Your task to perform on an android device: Open settings Image 0: 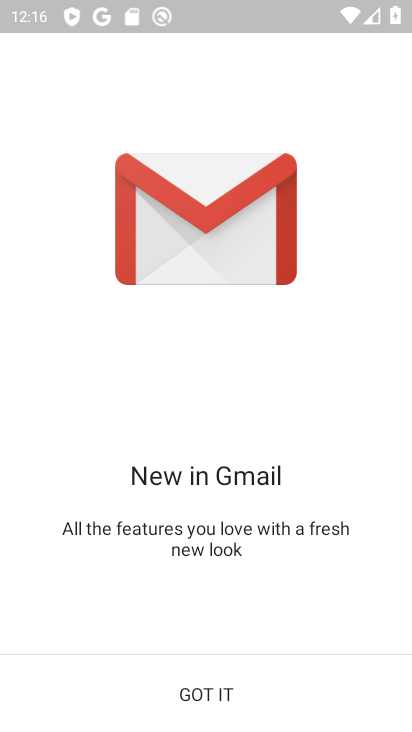
Step 0: press home button
Your task to perform on an android device: Open settings Image 1: 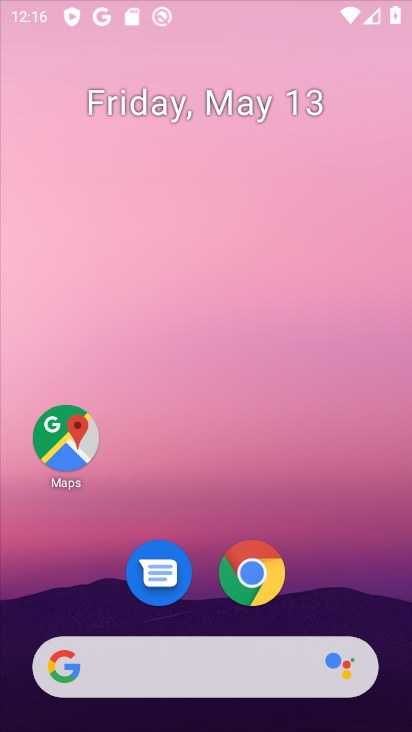
Step 1: drag from (232, 677) to (273, 337)
Your task to perform on an android device: Open settings Image 2: 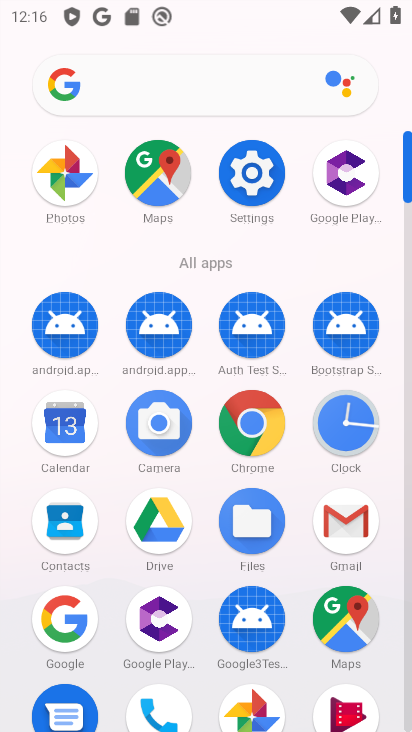
Step 2: click (246, 198)
Your task to perform on an android device: Open settings Image 3: 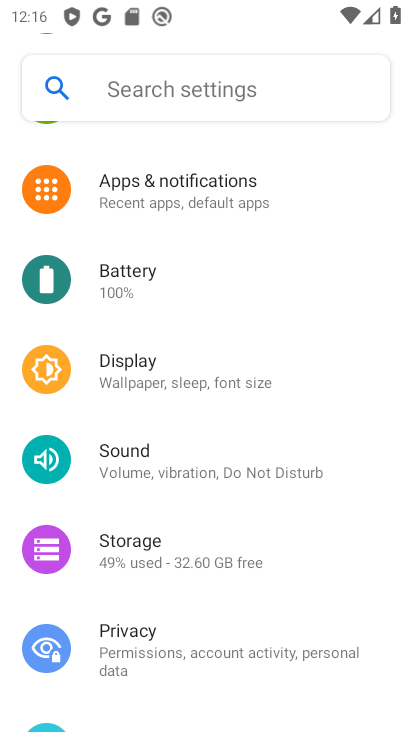
Step 3: task complete